Your task to perform on an android device: Go to ESPN.com Image 0: 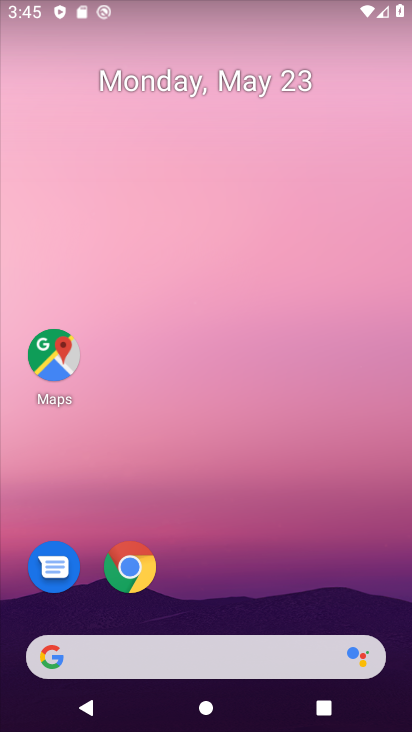
Step 0: click (128, 565)
Your task to perform on an android device: Go to ESPN.com Image 1: 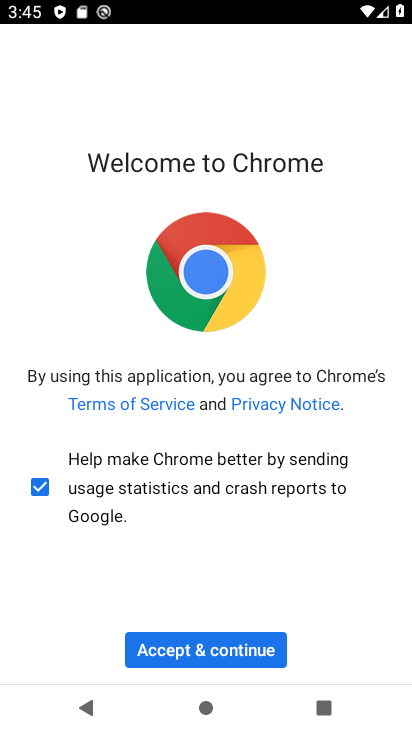
Step 1: click (201, 642)
Your task to perform on an android device: Go to ESPN.com Image 2: 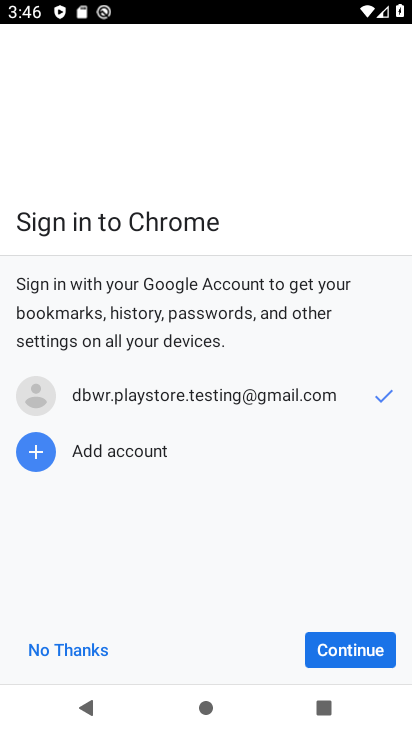
Step 2: click (342, 650)
Your task to perform on an android device: Go to ESPN.com Image 3: 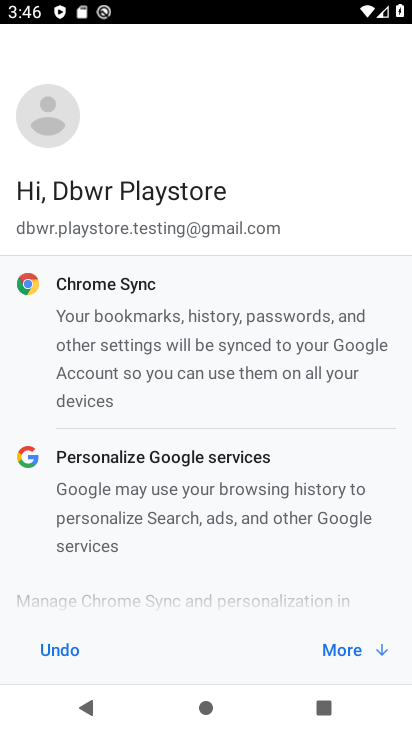
Step 3: click (342, 650)
Your task to perform on an android device: Go to ESPN.com Image 4: 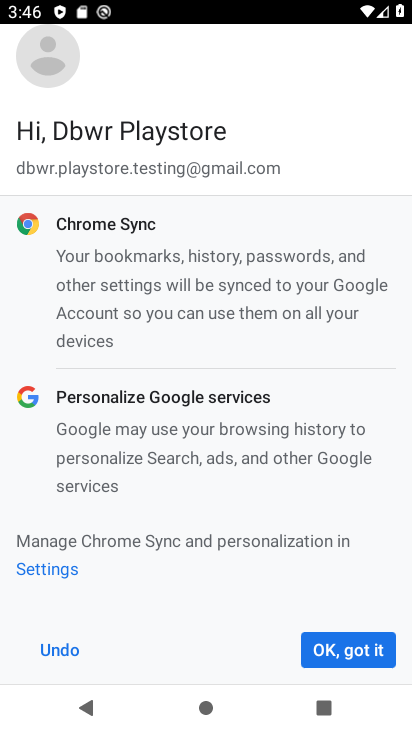
Step 4: click (342, 650)
Your task to perform on an android device: Go to ESPN.com Image 5: 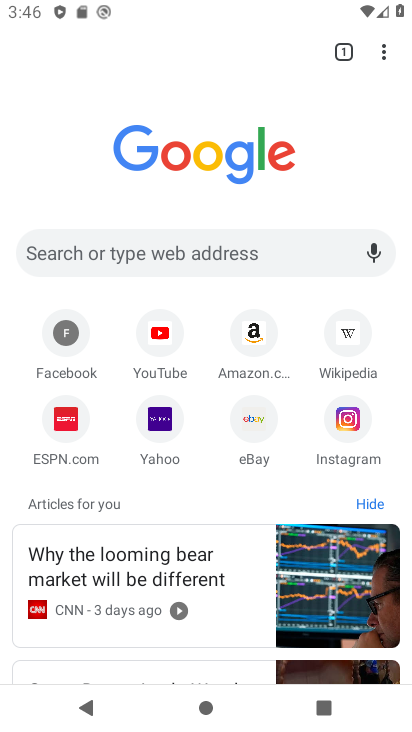
Step 5: click (68, 414)
Your task to perform on an android device: Go to ESPN.com Image 6: 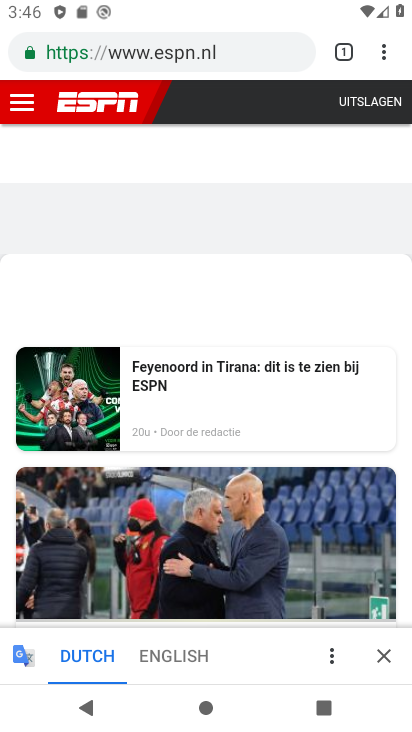
Step 6: task complete